Your task to perform on an android device: toggle location history Image 0: 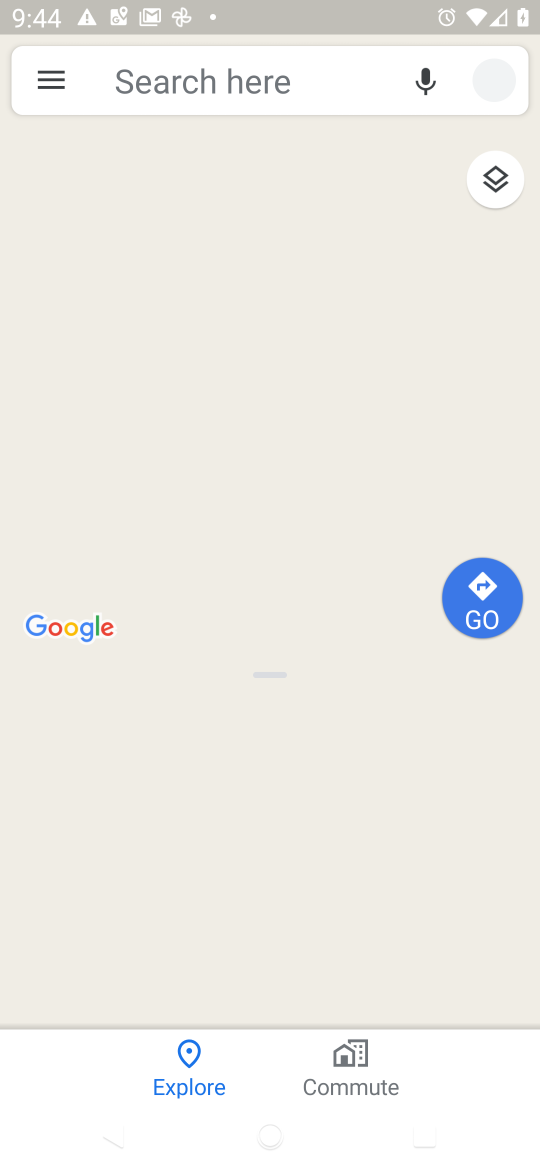
Step 0: press home button
Your task to perform on an android device: toggle location history Image 1: 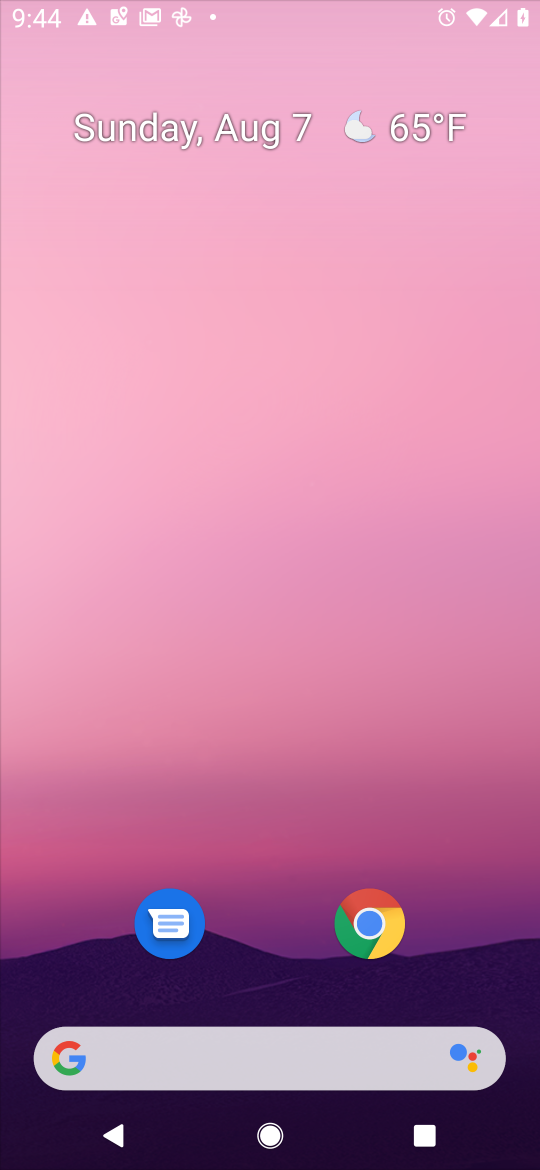
Step 1: drag from (452, 743) to (245, 70)
Your task to perform on an android device: toggle location history Image 2: 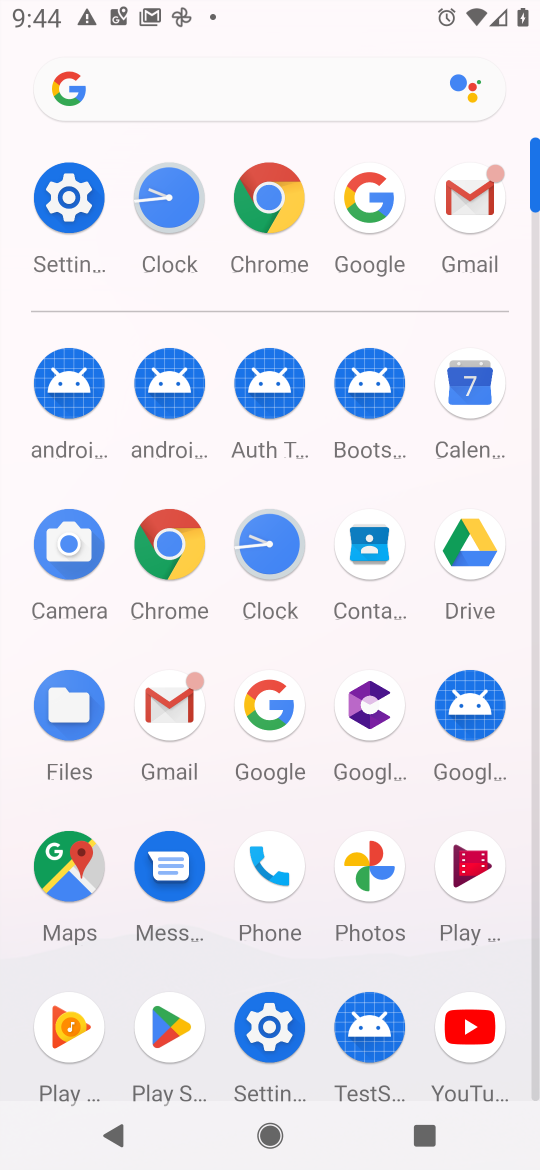
Step 2: click (81, 212)
Your task to perform on an android device: toggle location history Image 3: 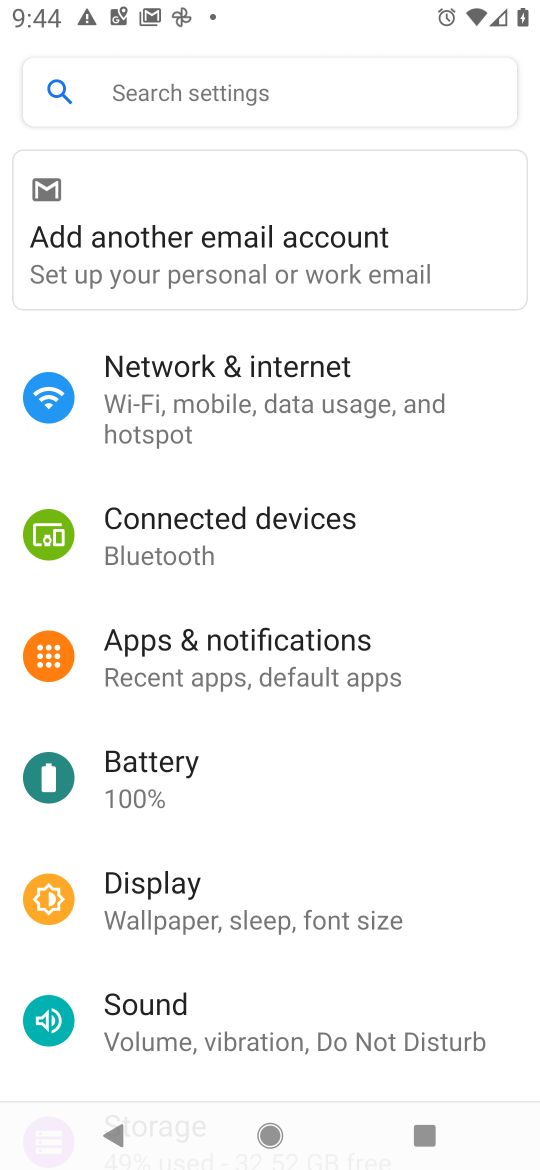
Step 3: drag from (314, 726) to (257, 332)
Your task to perform on an android device: toggle location history Image 4: 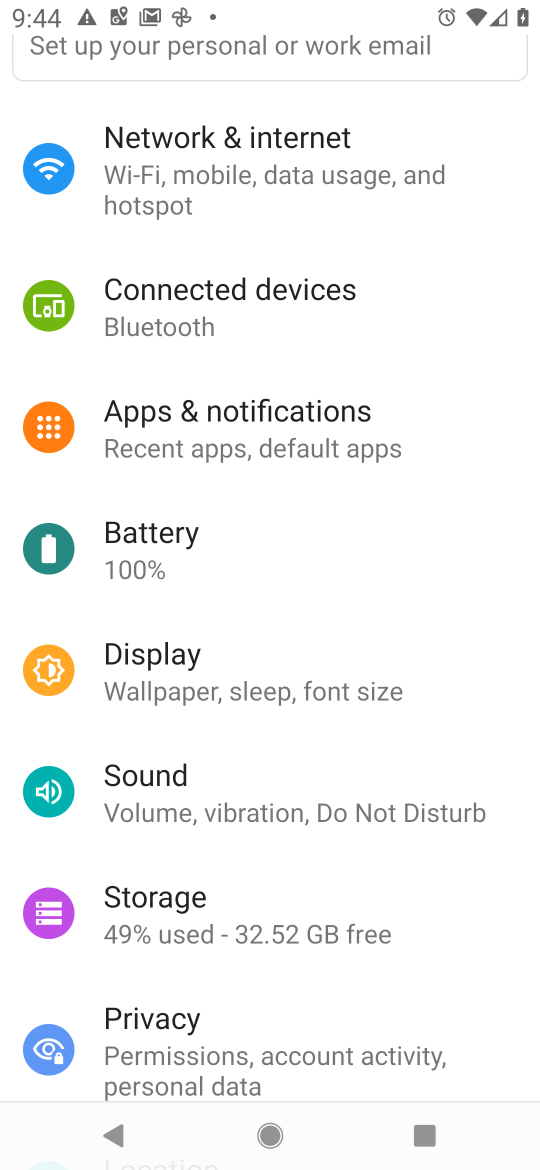
Step 4: drag from (162, 1010) to (245, 360)
Your task to perform on an android device: toggle location history Image 5: 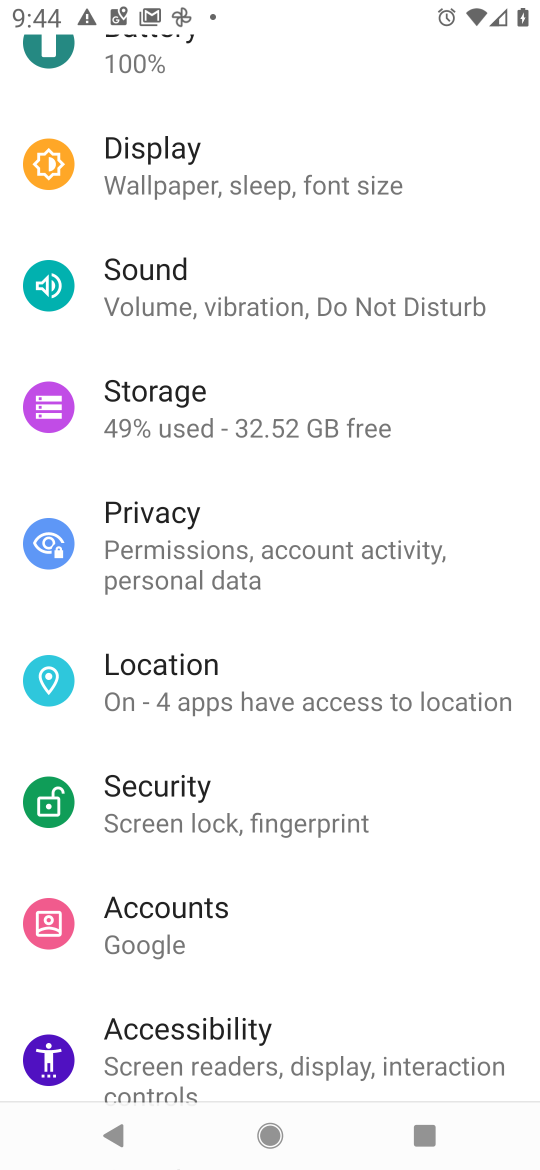
Step 5: click (179, 676)
Your task to perform on an android device: toggle location history Image 6: 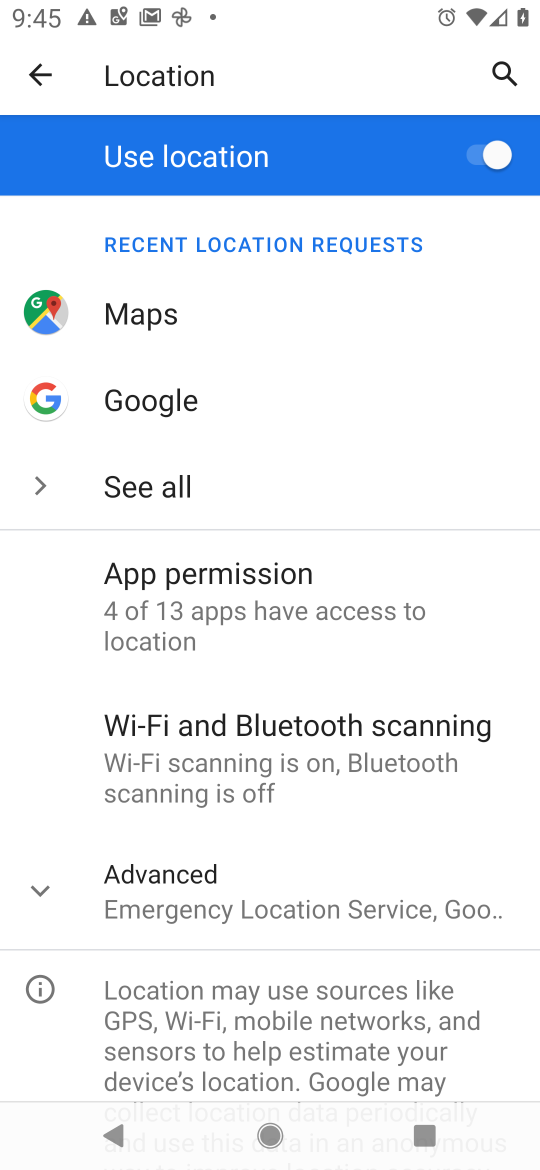
Step 6: click (205, 899)
Your task to perform on an android device: toggle location history Image 7: 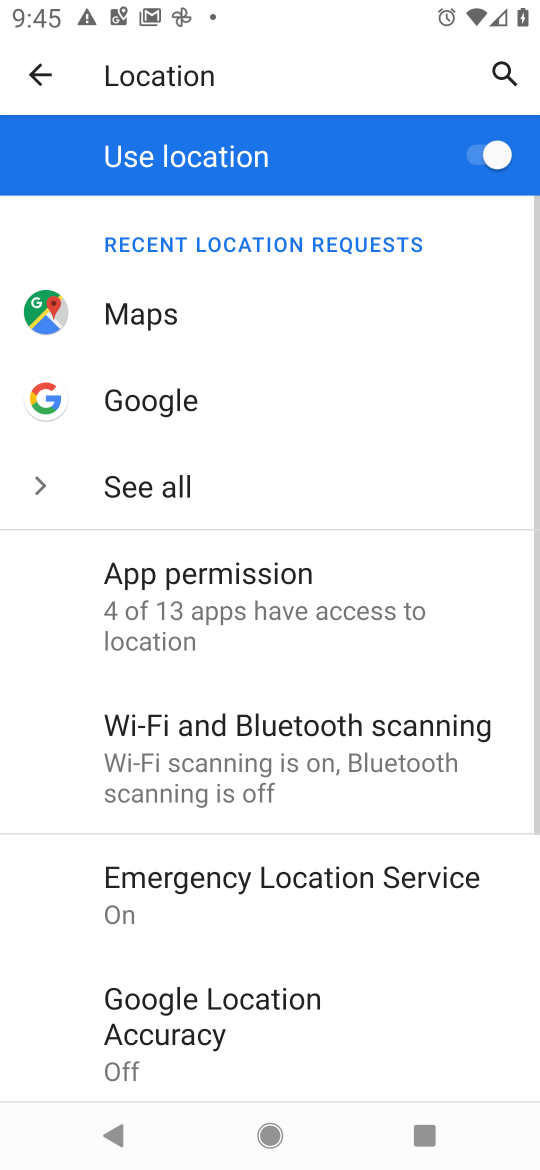
Step 7: drag from (317, 758) to (305, 397)
Your task to perform on an android device: toggle location history Image 8: 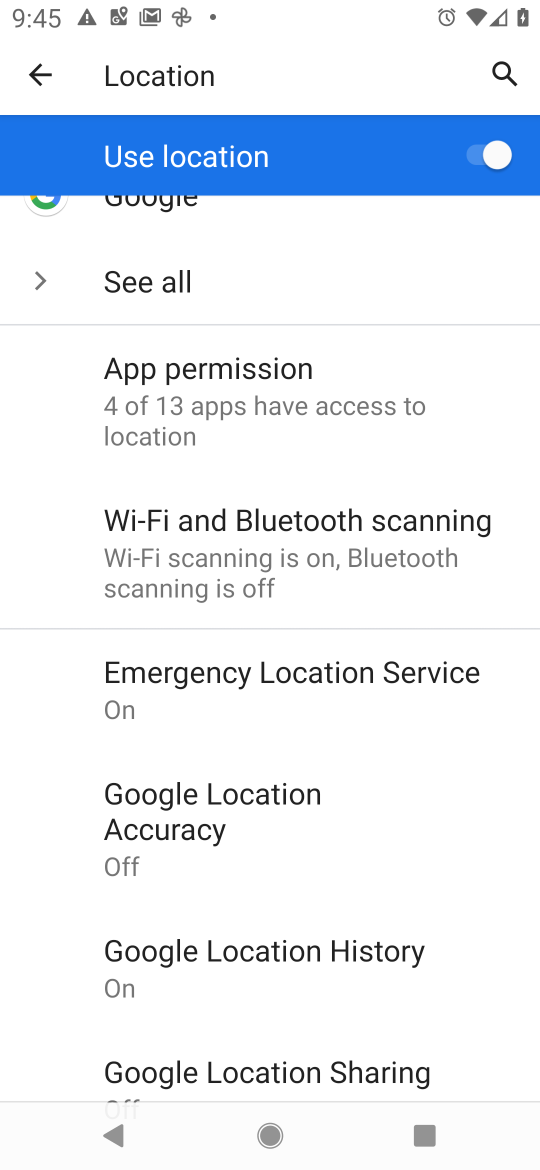
Step 8: click (251, 960)
Your task to perform on an android device: toggle location history Image 9: 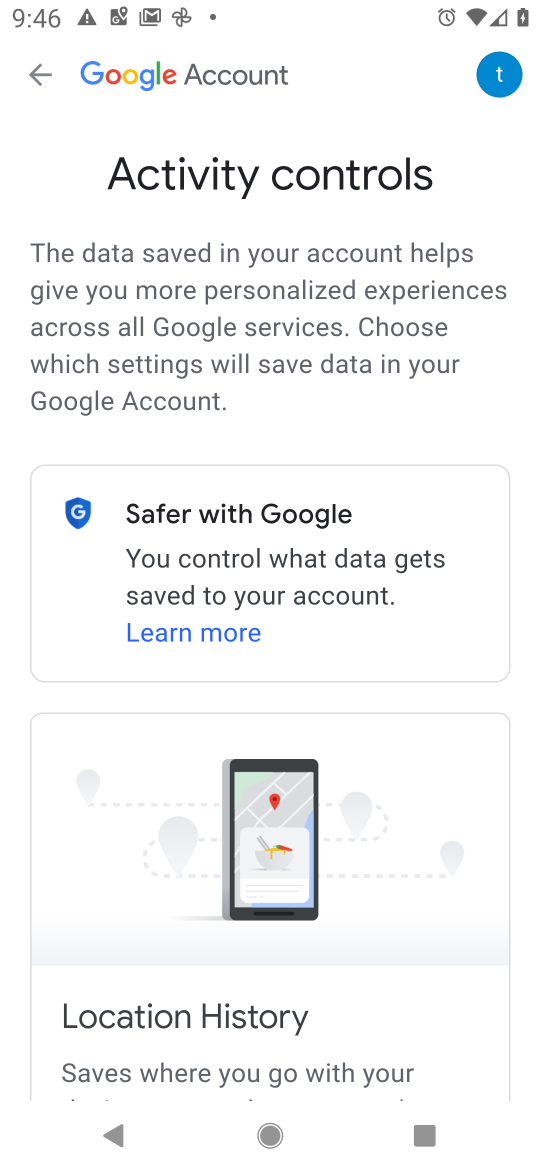
Step 9: drag from (323, 1026) to (281, 253)
Your task to perform on an android device: toggle location history Image 10: 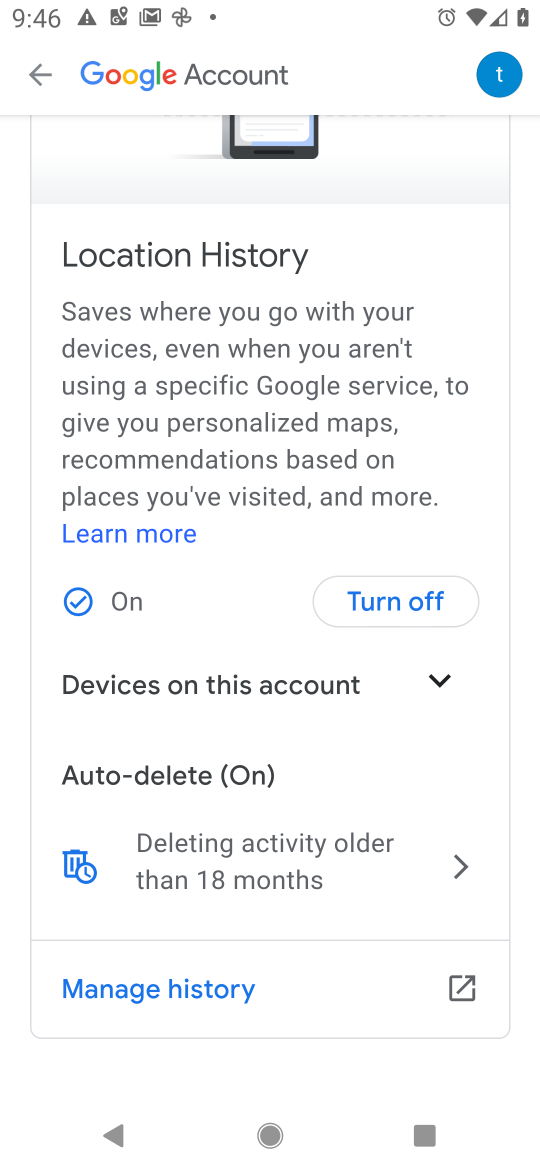
Step 10: click (402, 600)
Your task to perform on an android device: toggle location history Image 11: 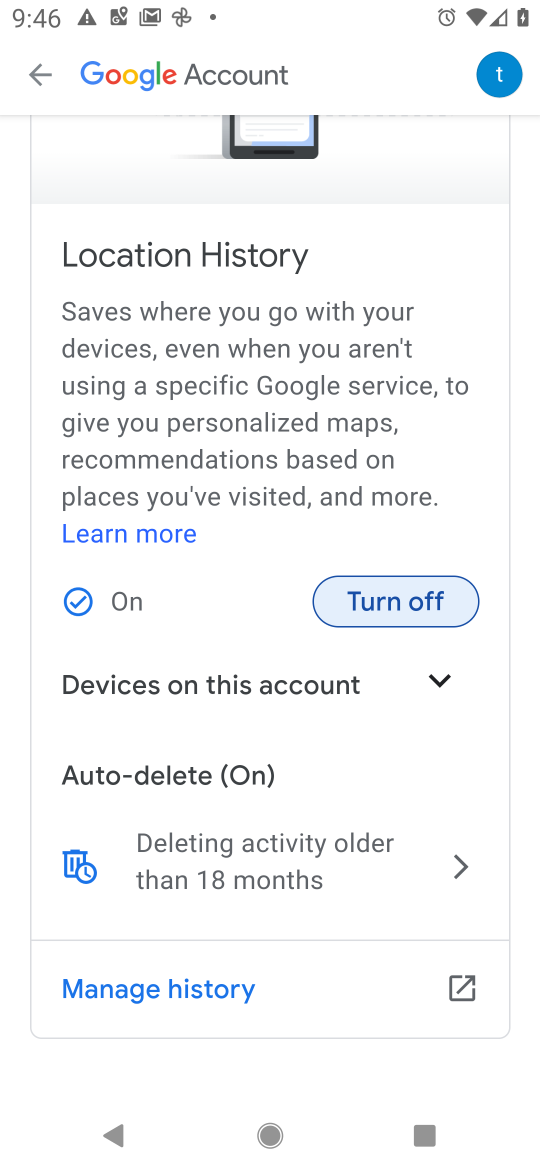
Step 11: task complete